Your task to perform on an android device: Open wifi settings Image 0: 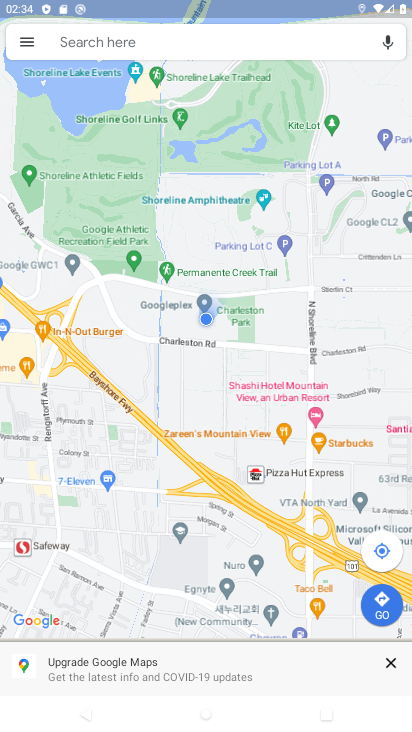
Step 0: press home button
Your task to perform on an android device: Open wifi settings Image 1: 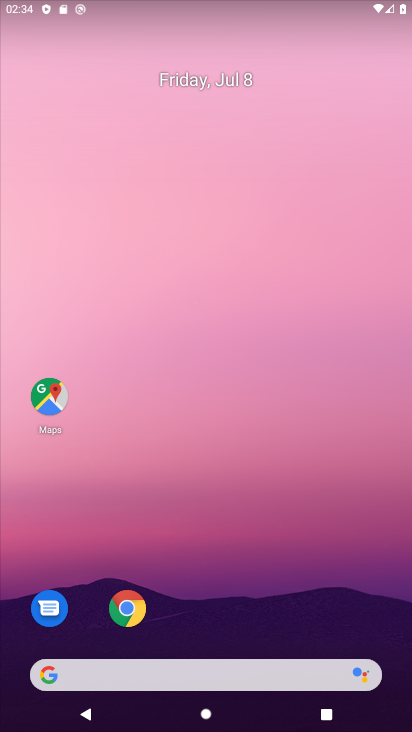
Step 1: drag from (232, 543) to (234, 101)
Your task to perform on an android device: Open wifi settings Image 2: 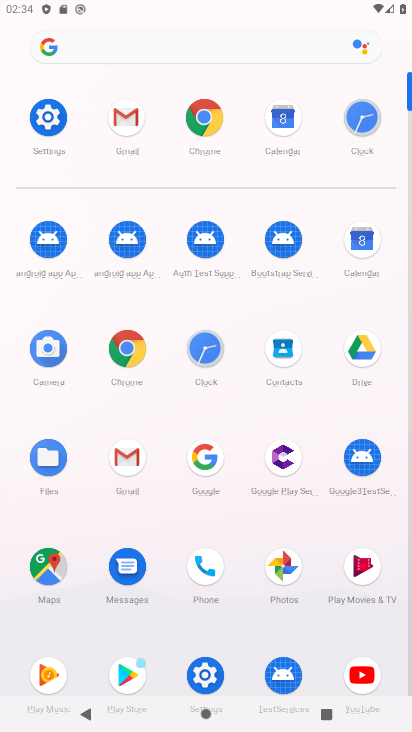
Step 2: click (41, 116)
Your task to perform on an android device: Open wifi settings Image 3: 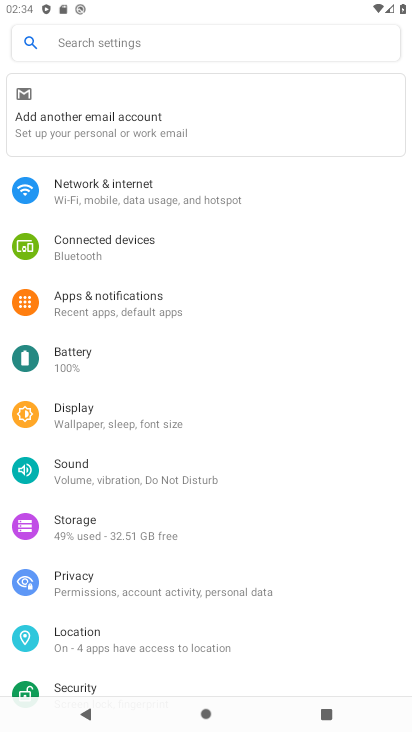
Step 3: click (123, 196)
Your task to perform on an android device: Open wifi settings Image 4: 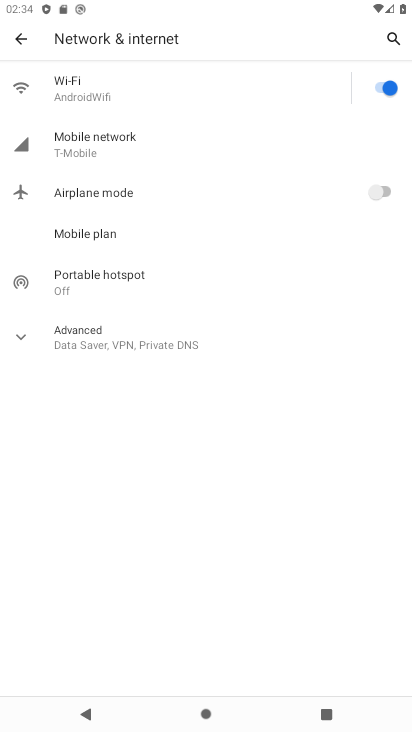
Step 4: click (128, 85)
Your task to perform on an android device: Open wifi settings Image 5: 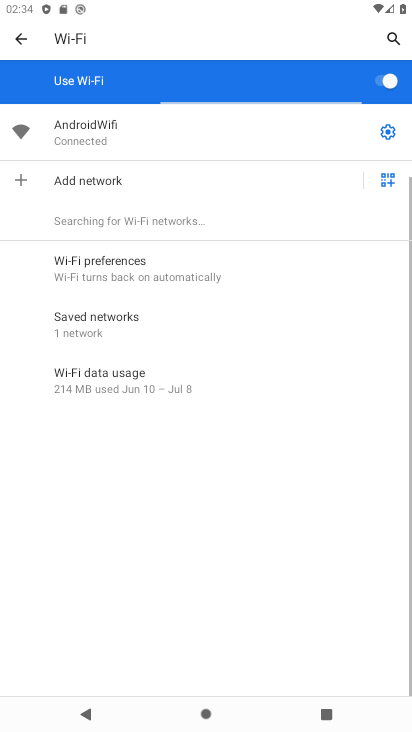
Step 5: click (188, 118)
Your task to perform on an android device: Open wifi settings Image 6: 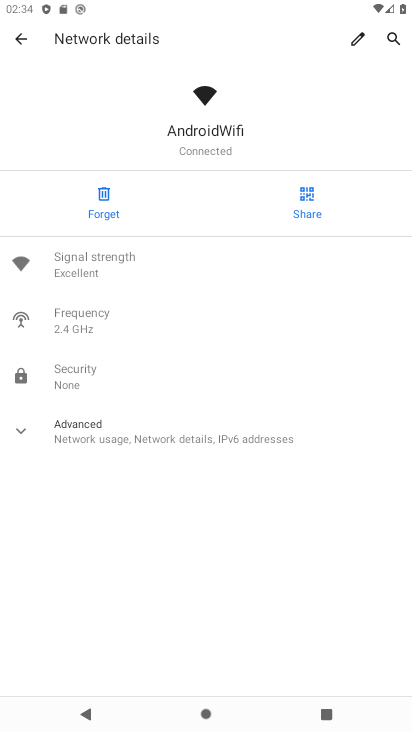
Step 6: task complete